Your task to perform on an android device: refresh tabs in the chrome app Image 0: 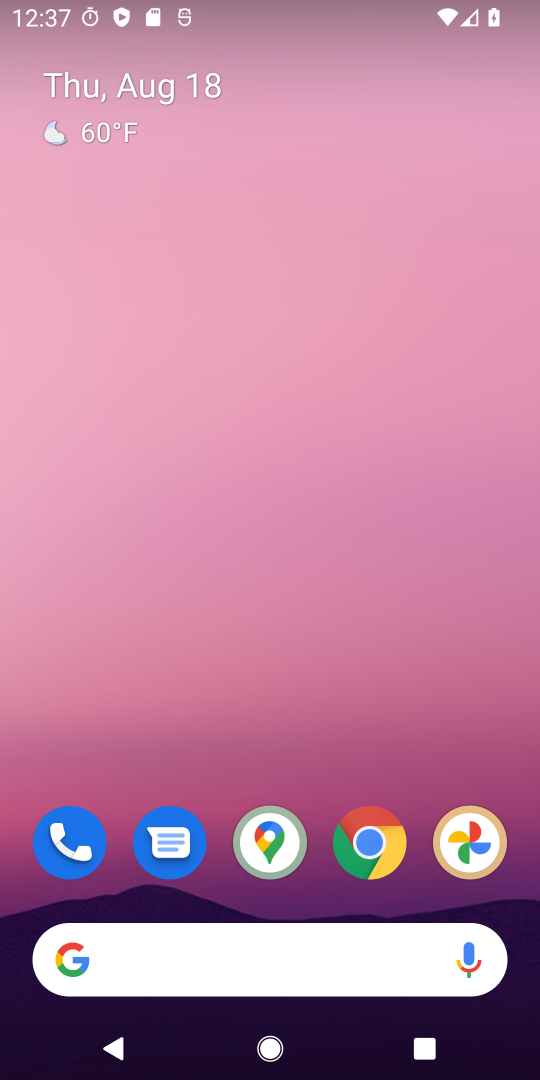
Step 0: click (370, 846)
Your task to perform on an android device: refresh tabs in the chrome app Image 1: 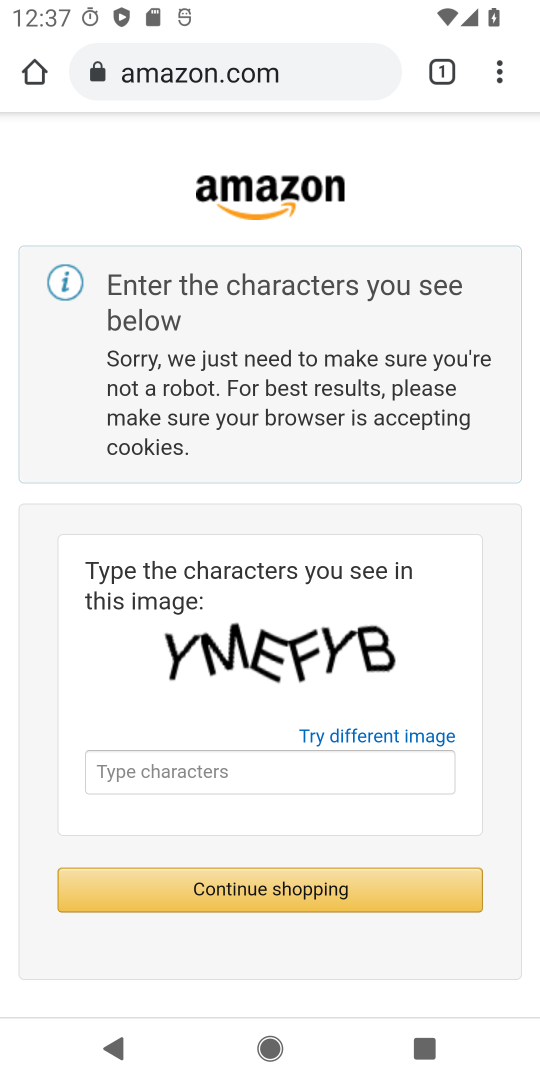
Step 1: click (364, 847)
Your task to perform on an android device: refresh tabs in the chrome app Image 2: 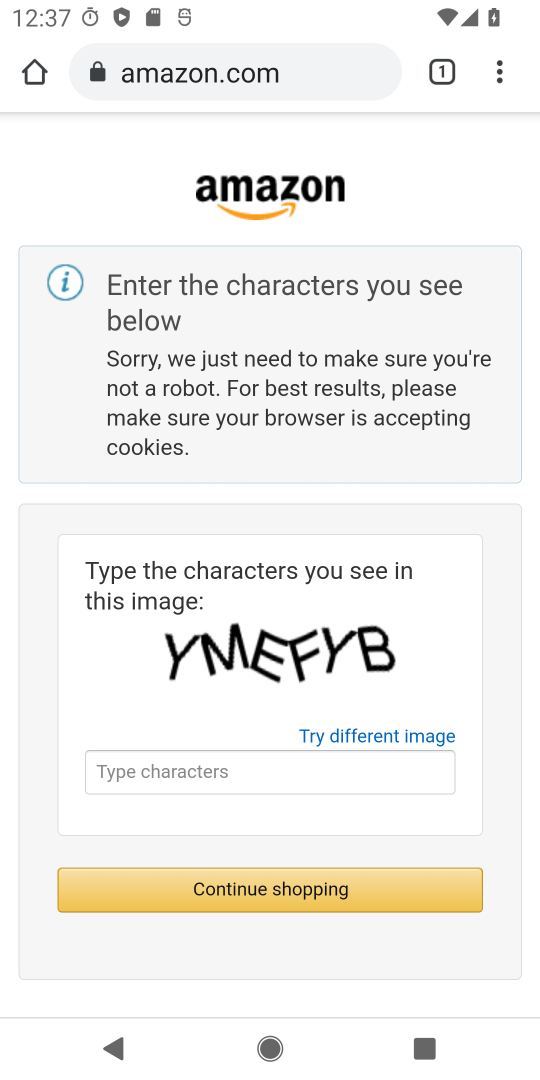
Step 2: click (513, 57)
Your task to perform on an android device: refresh tabs in the chrome app Image 3: 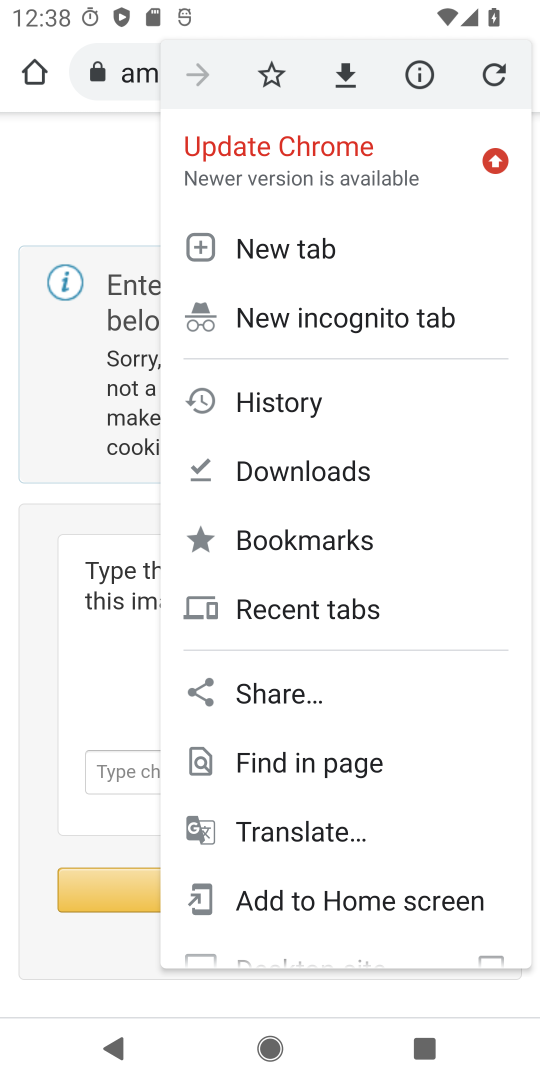
Step 3: click (499, 72)
Your task to perform on an android device: refresh tabs in the chrome app Image 4: 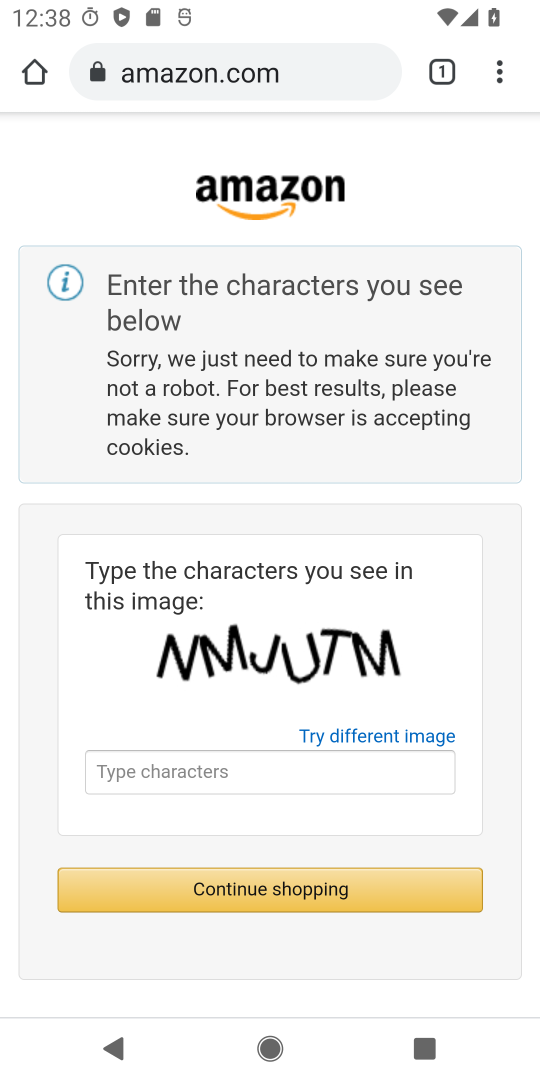
Step 4: task complete